Your task to perform on an android device: star an email in the gmail app Image 0: 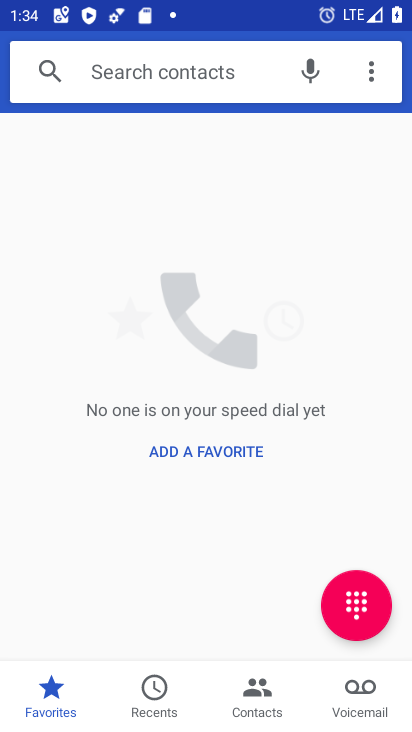
Step 0: press home button
Your task to perform on an android device: star an email in the gmail app Image 1: 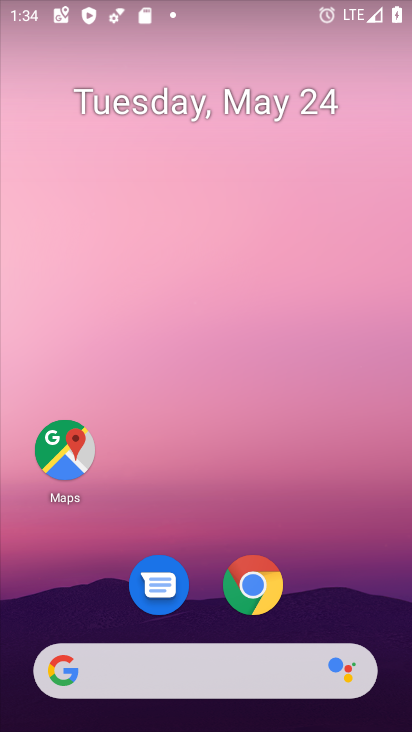
Step 1: drag from (227, 517) to (275, 60)
Your task to perform on an android device: star an email in the gmail app Image 2: 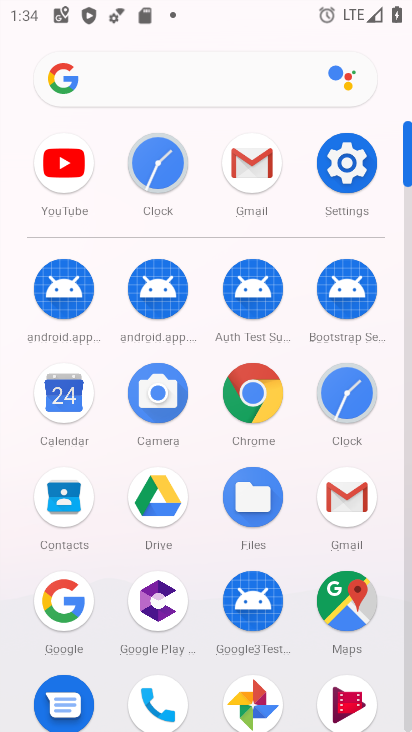
Step 2: click (255, 147)
Your task to perform on an android device: star an email in the gmail app Image 3: 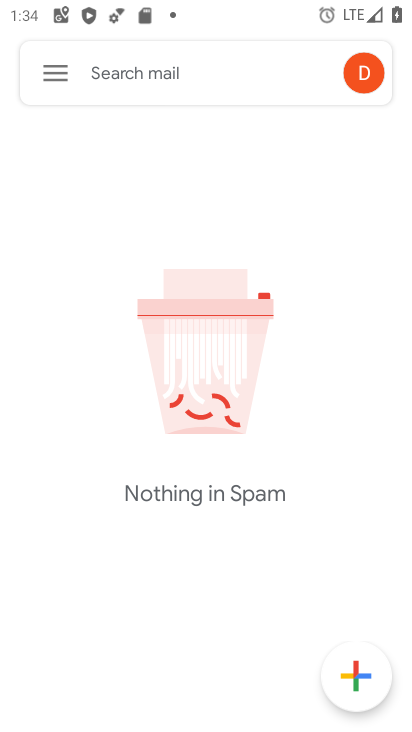
Step 3: click (59, 78)
Your task to perform on an android device: star an email in the gmail app Image 4: 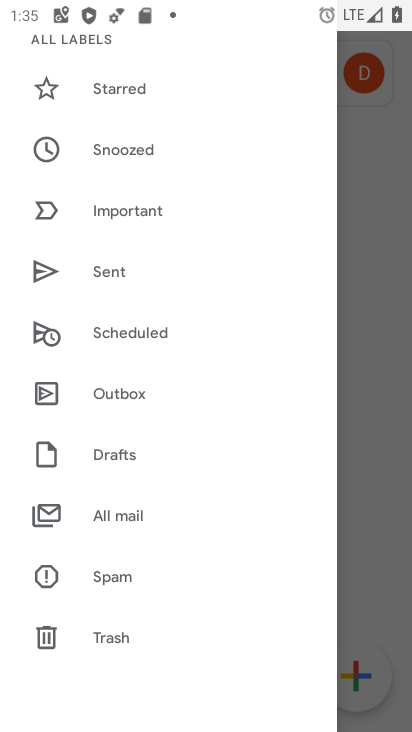
Step 4: click (131, 521)
Your task to perform on an android device: star an email in the gmail app Image 5: 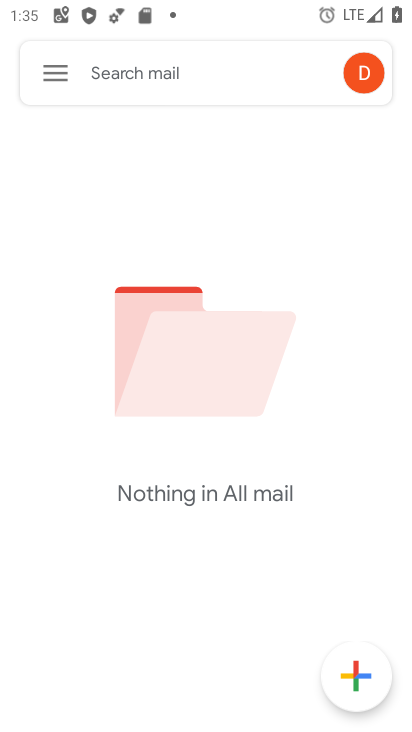
Step 5: task complete